Your task to perform on an android device: Go to Wikipedia Image 0: 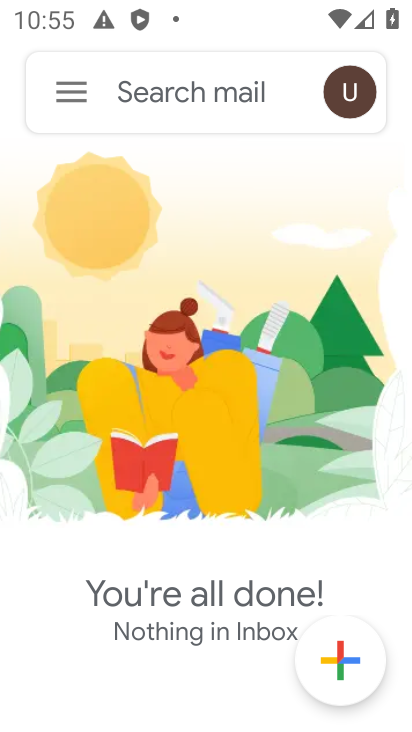
Step 0: task complete